Your task to perform on an android device: Open Google Maps and go to "Timeline" Image 0: 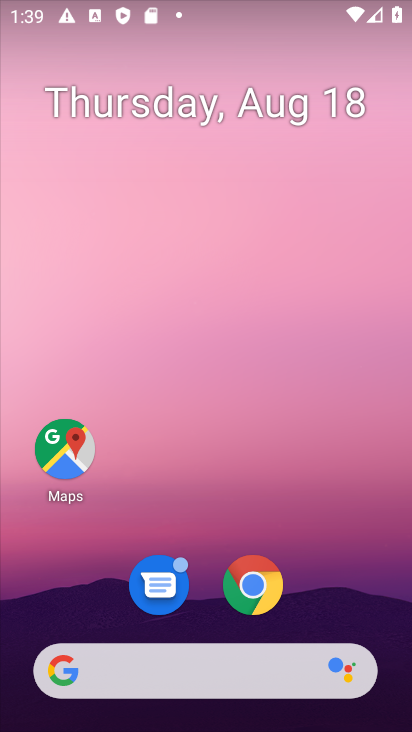
Step 0: click (67, 452)
Your task to perform on an android device: Open Google Maps and go to "Timeline" Image 1: 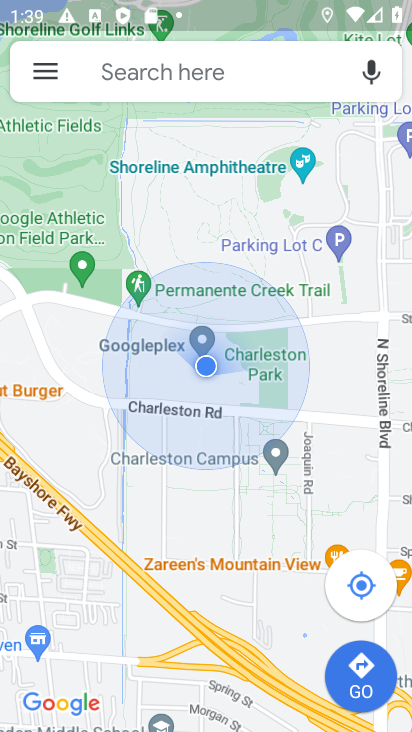
Step 1: click (43, 63)
Your task to perform on an android device: Open Google Maps and go to "Timeline" Image 2: 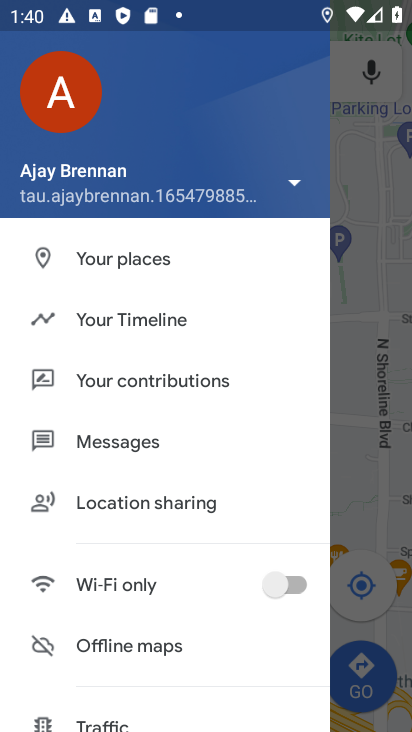
Step 2: click (111, 312)
Your task to perform on an android device: Open Google Maps and go to "Timeline" Image 3: 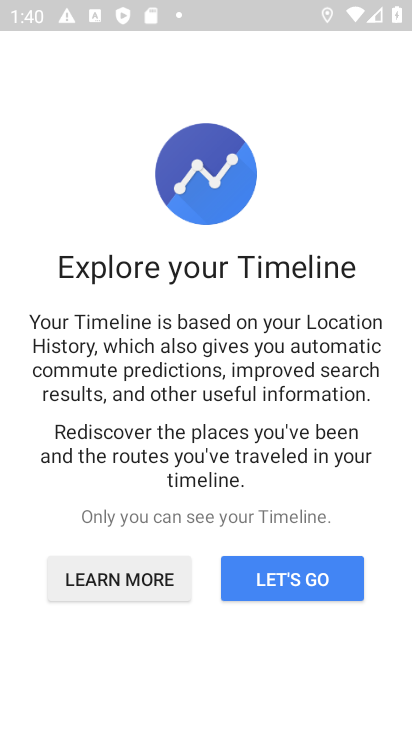
Step 3: click (330, 566)
Your task to perform on an android device: Open Google Maps and go to "Timeline" Image 4: 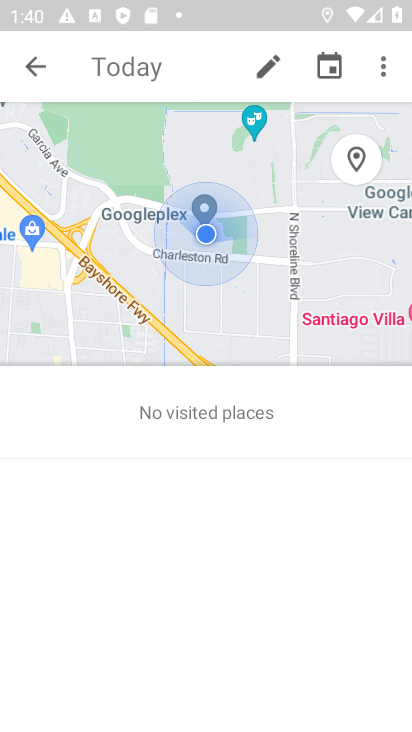
Step 4: task complete